Your task to perform on an android device: check out phone information Image 0: 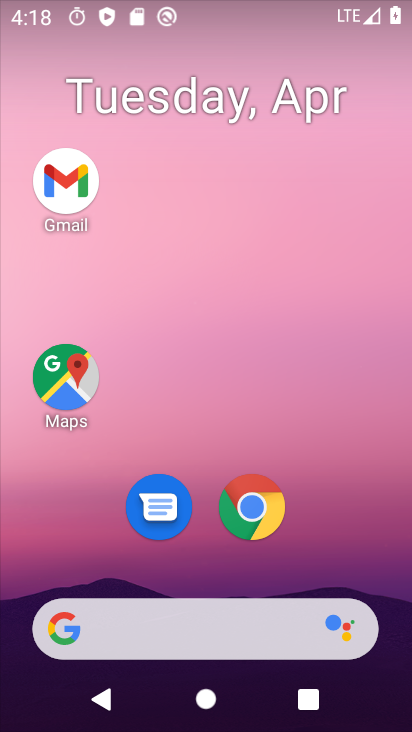
Step 0: drag from (207, 579) to (244, 140)
Your task to perform on an android device: check out phone information Image 1: 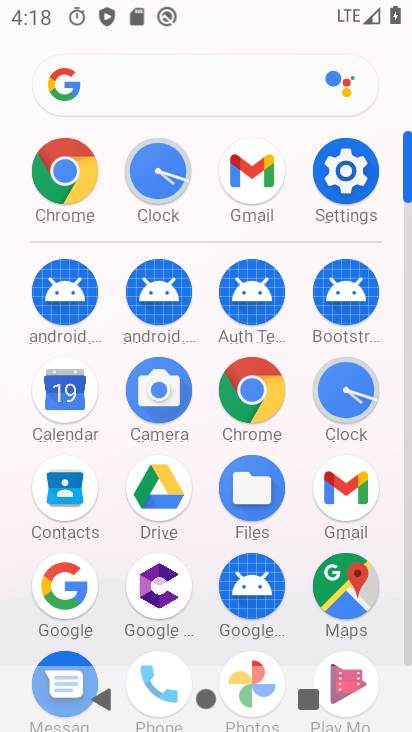
Step 1: click (358, 166)
Your task to perform on an android device: check out phone information Image 2: 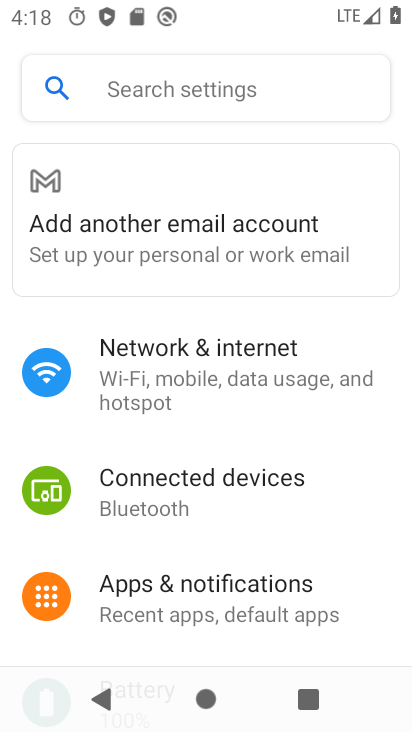
Step 2: drag from (277, 588) to (305, 102)
Your task to perform on an android device: check out phone information Image 3: 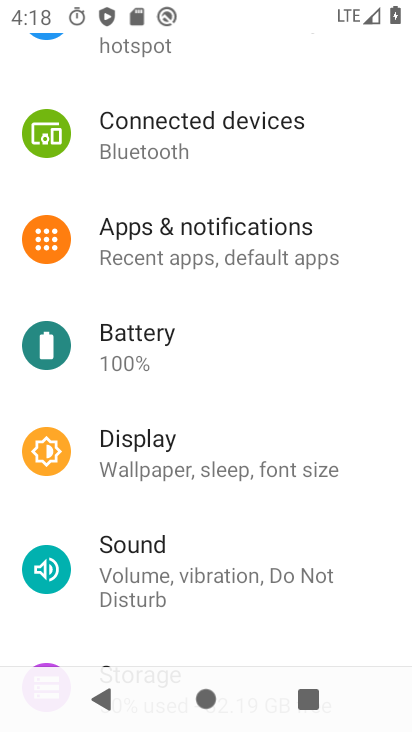
Step 3: drag from (269, 610) to (280, 124)
Your task to perform on an android device: check out phone information Image 4: 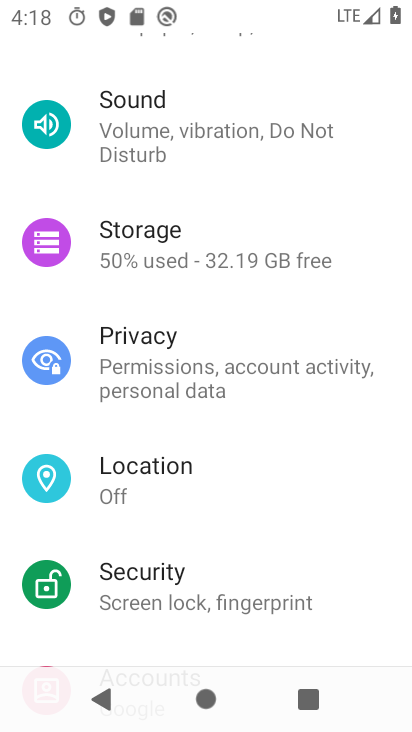
Step 4: drag from (258, 610) to (274, 151)
Your task to perform on an android device: check out phone information Image 5: 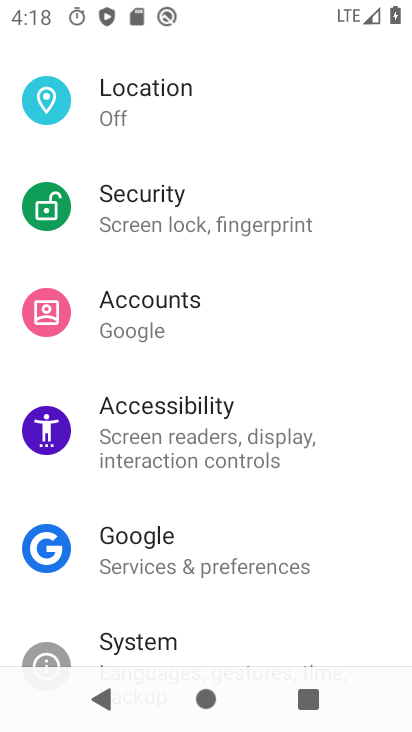
Step 5: drag from (243, 631) to (271, 195)
Your task to perform on an android device: check out phone information Image 6: 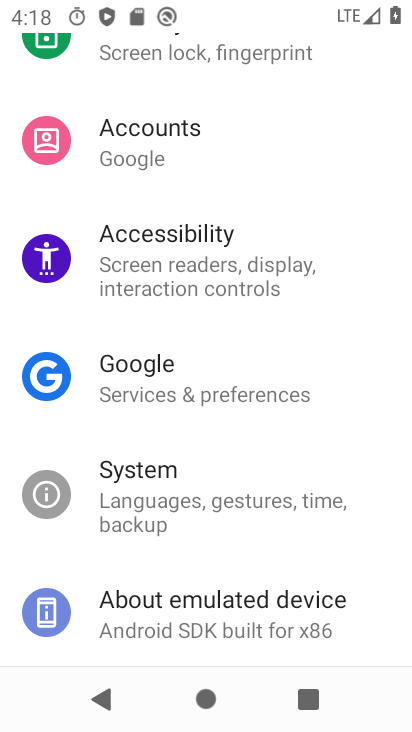
Step 6: click (250, 596)
Your task to perform on an android device: check out phone information Image 7: 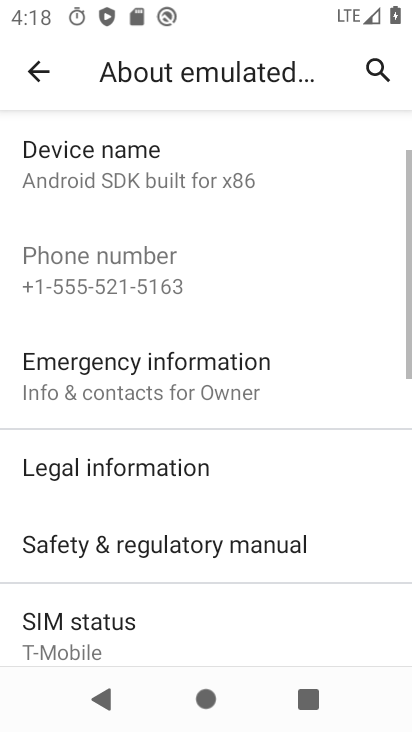
Step 7: drag from (249, 586) to (298, 217)
Your task to perform on an android device: check out phone information Image 8: 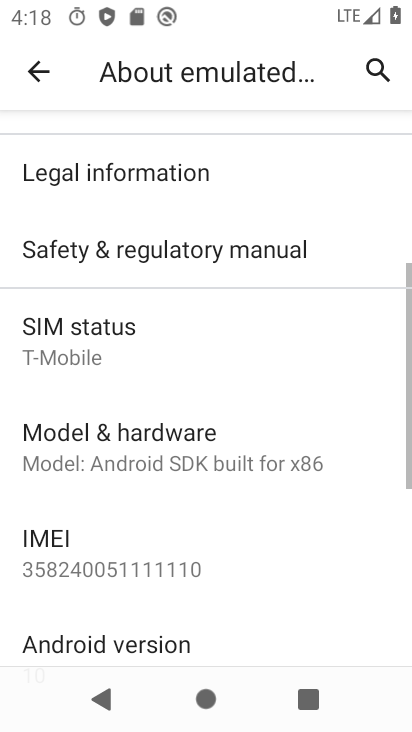
Step 8: click (278, 431)
Your task to perform on an android device: check out phone information Image 9: 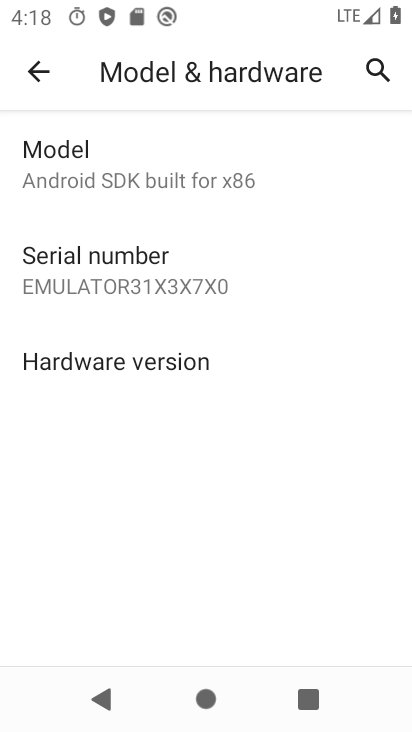
Step 9: task complete